Your task to perform on an android device: open device folders in google photos Image 0: 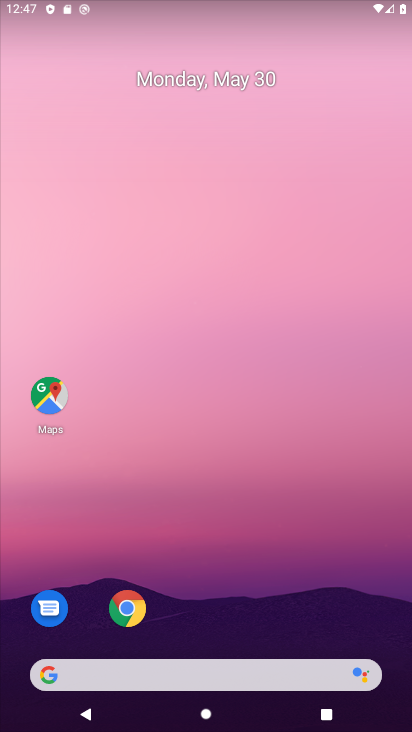
Step 0: drag from (177, 651) to (264, 164)
Your task to perform on an android device: open device folders in google photos Image 1: 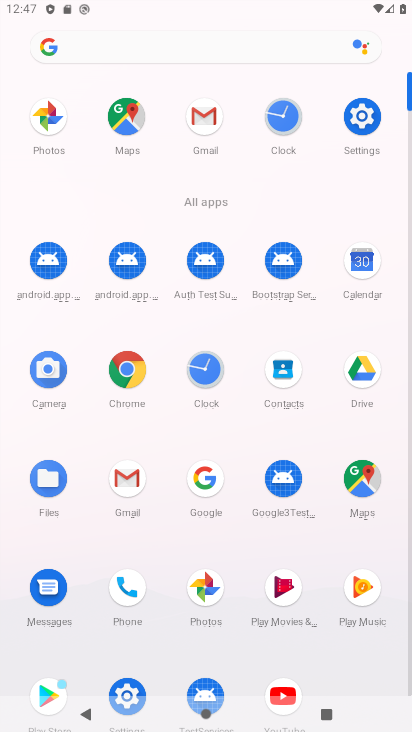
Step 1: click (198, 595)
Your task to perform on an android device: open device folders in google photos Image 2: 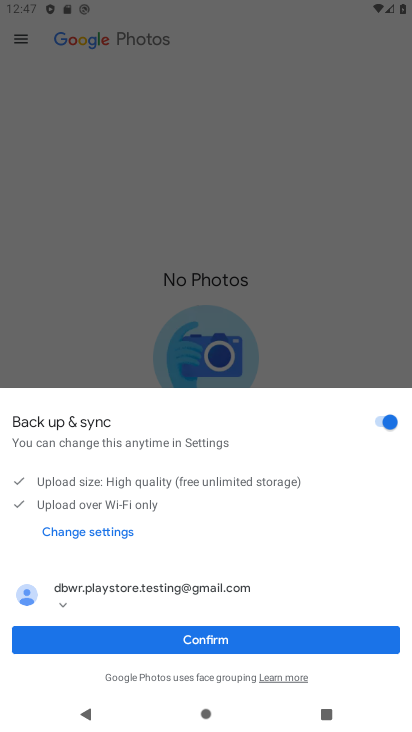
Step 2: click (233, 648)
Your task to perform on an android device: open device folders in google photos Image 3: 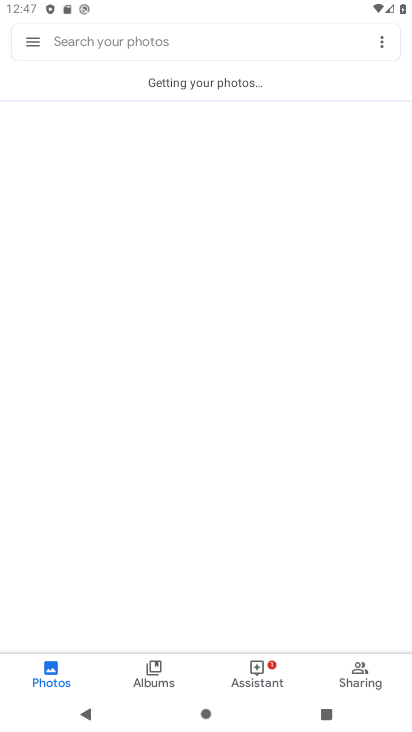
Step 3: click (45, 42)
Your task to perform on an android device: open device folders in google photos Image 4: 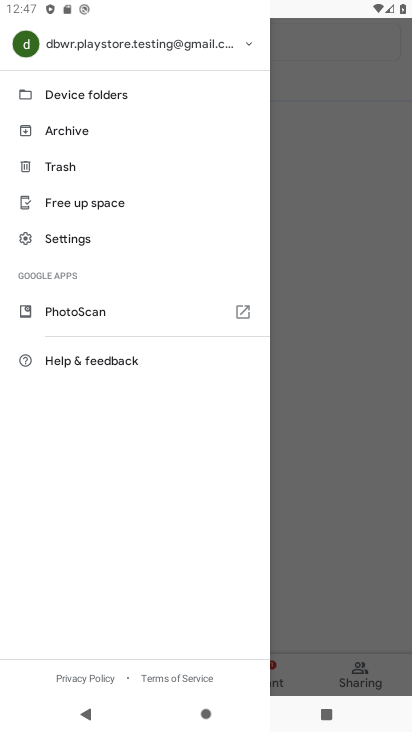
Step 4: click (120, 92)
Your task to perform on an android device: open device folders in google photos Image 5: 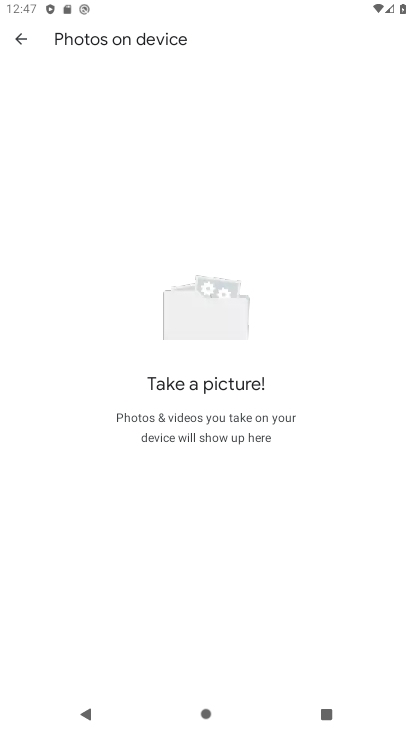
Step 5: task complete